Your task to perform on an android device: check battery use Image 0: 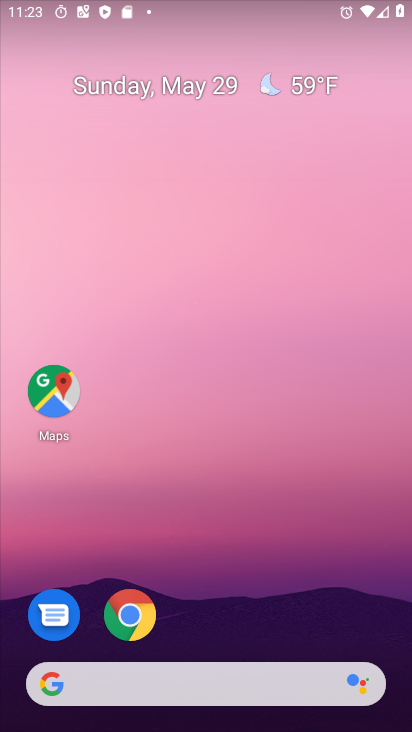
Step 0: drag from (211, 561) to (213, 81)
Your task to perform on an android device: check battery use Image 1: 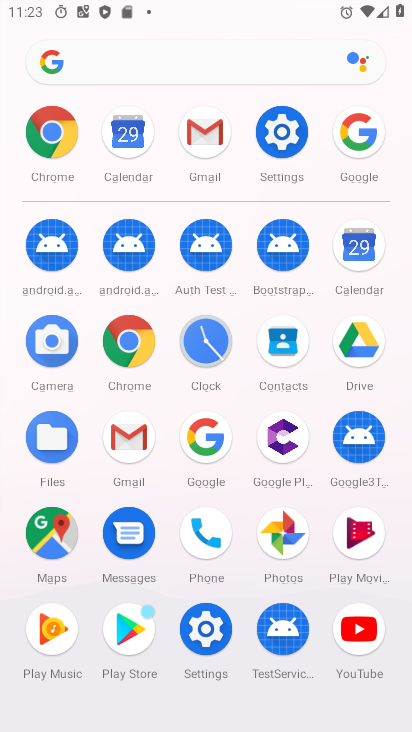
Step 1: click (283, 136)
Your task to perform on an android device: check battery use Image 2: 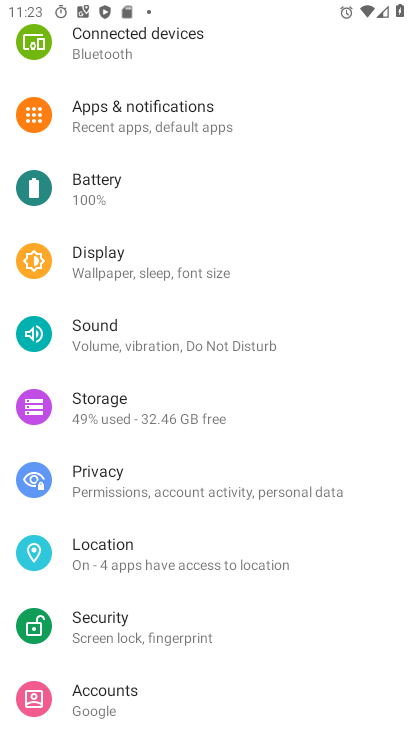
Step 2: click (146, 199)
Your task to perform on an android device: check battery use Image 3: 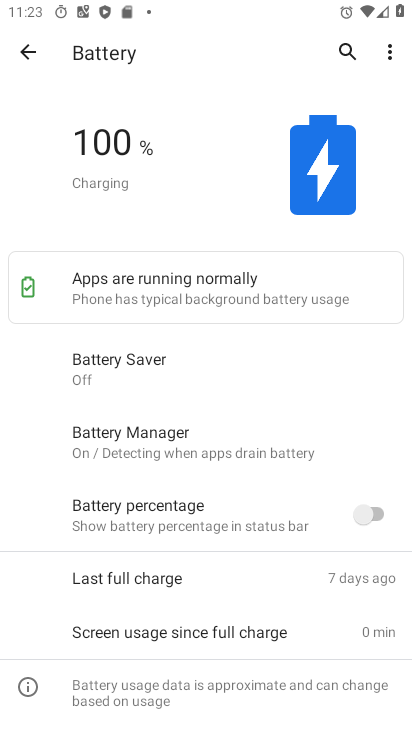
Step 3: click (382, 52)
Your task to perform on an android device: check battery use Image 4: 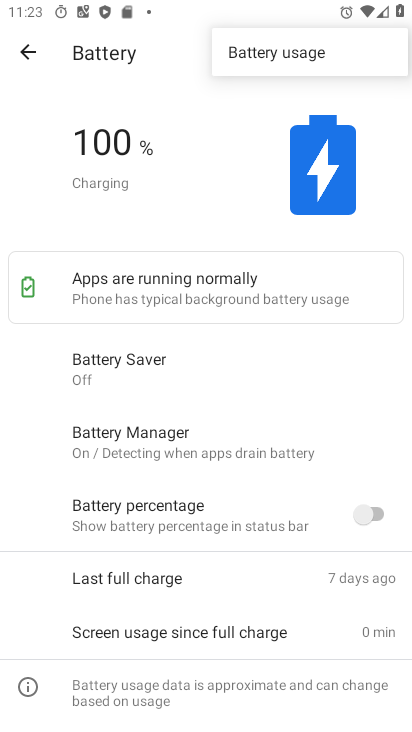
Step 4: click (267, 55)
Your task to perform on an android device: check battery use Image 5: 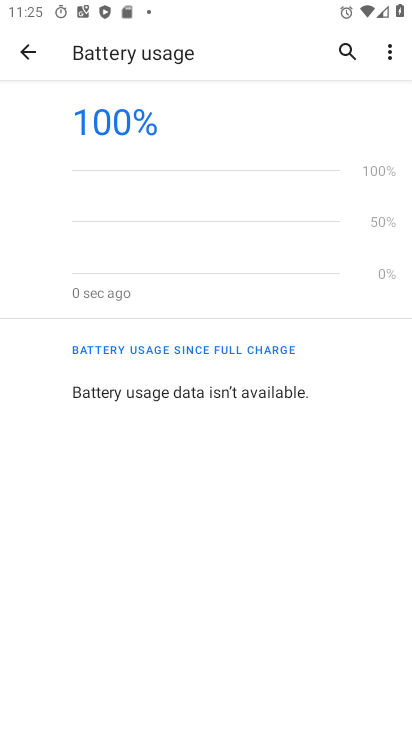
Step 5: task complete